Your task to perform on an android device: Open Google Image 0: 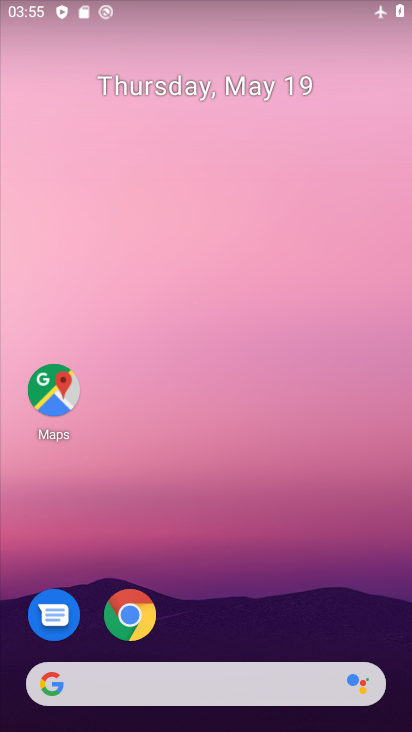
Step 0: drag from (340, 631) to (389, 32)
Your task to perform on an android device: Open Google Image 1: 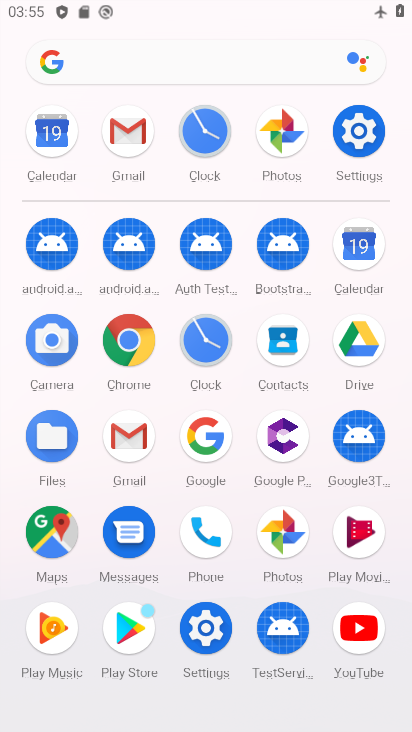
Step 1: click (213, 438)
Your task to perform on an android device: Open Google Image 2: 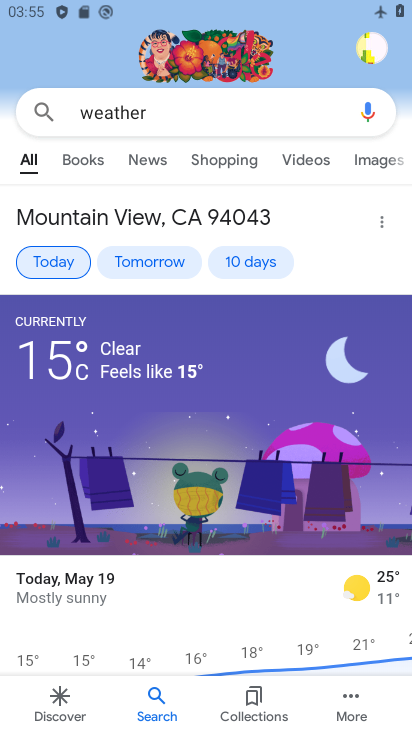
Step 2: task complete